Your task to perform on an android device: Go to Reddit.com Image 0: 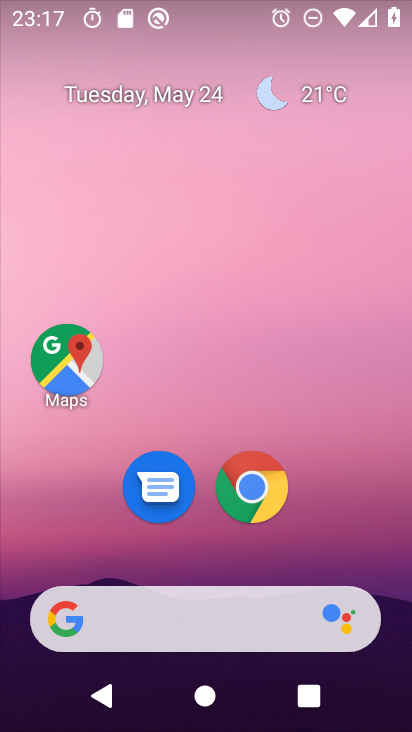
Step 0: click (253, 493)
Your task to perform on an android device: Go to Reddit.com Image 1: 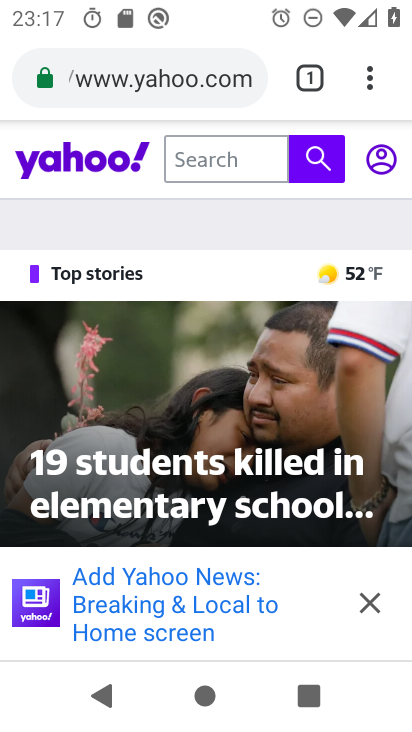
Step 1: click (117, 86)
Your task to perform on an android device: Go to Reddit.com Image 2: 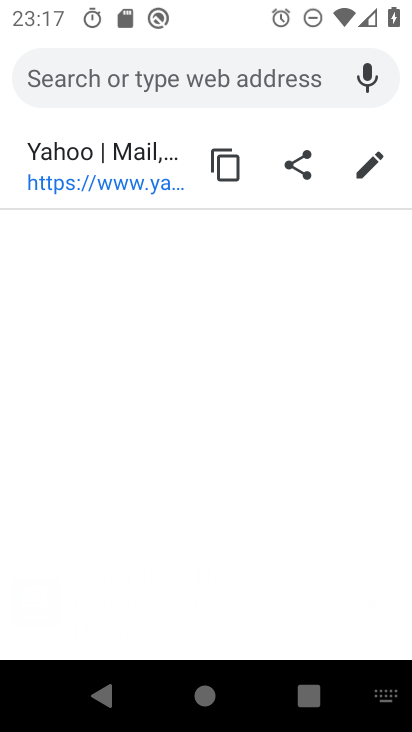
Step 2: type "reddit.com"
Your task to perform on an android device: Go to Reddit.com Image 3: 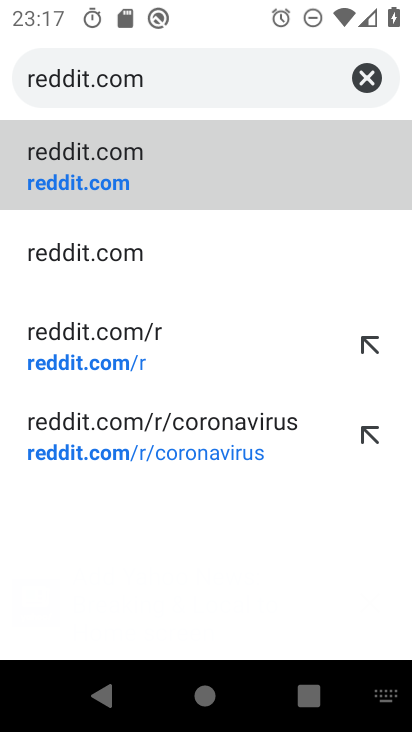
Step 3: click (87, 158)
Your task to perform on an android device: Go to Reddit.com Image 4: 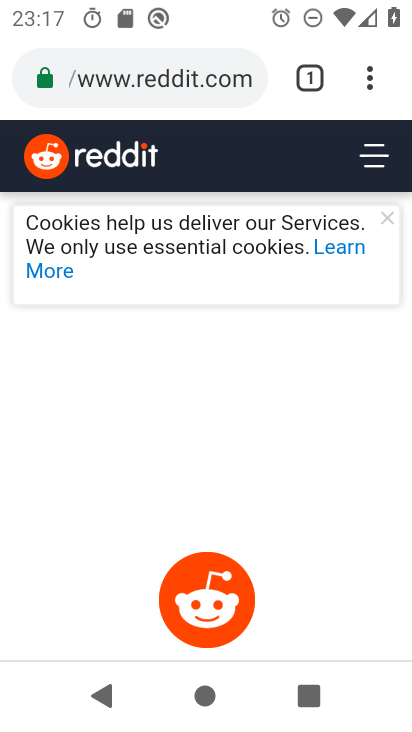
Step 4: task complete